Your task to perform on an android device: Open the phone app and click the voicemail tab. Image 0: 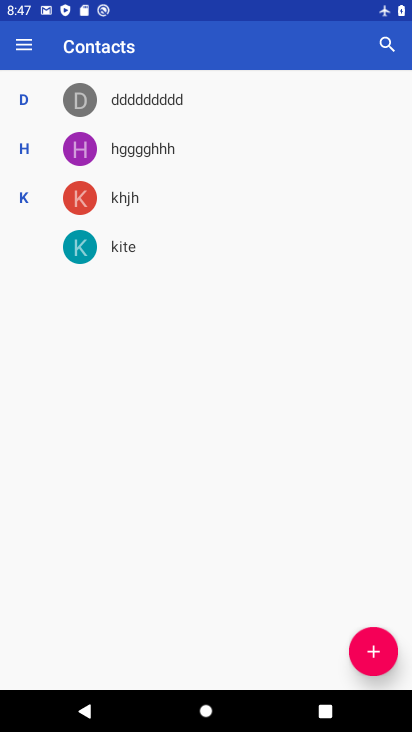
Step 0: press home button
Your task to perform on an android device: Open the phone app and click the voicemail tab. Image 1: 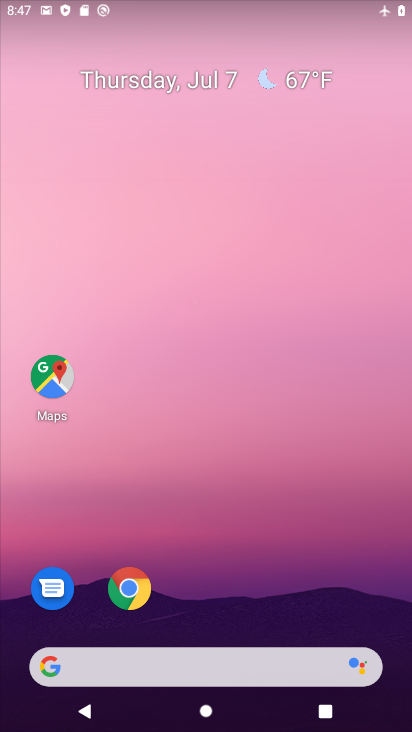
Step 1: drag from (234, 567) to (276, 37)
Your task to perform on an android device: Open the phone app and click the voicemail tab. Image 2: 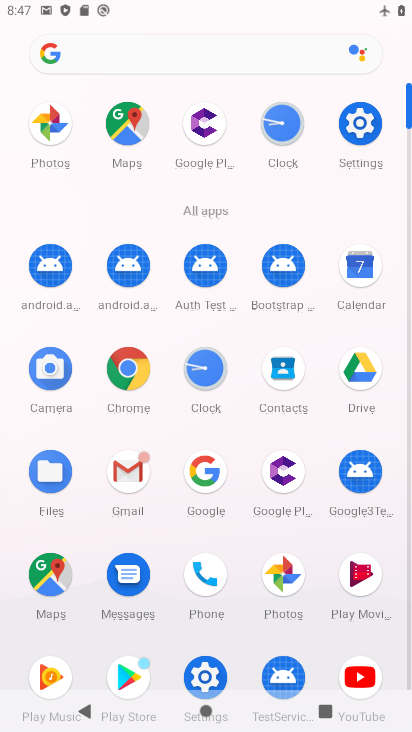
Step 2: click (199, 576)
Your task to perform on an android device: Open the phone app and click the voicemail tab. Image 3: 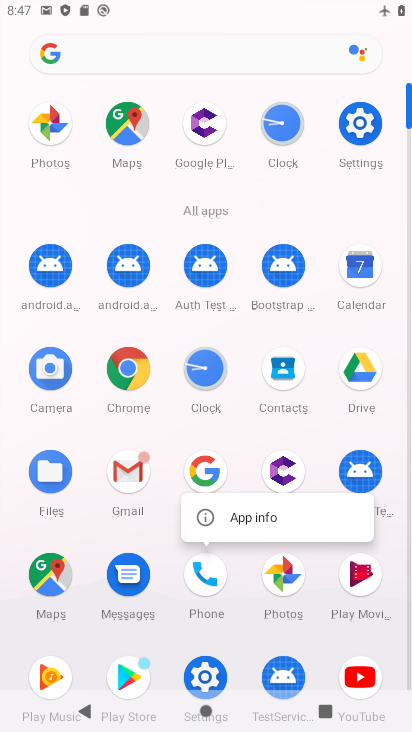
Step 3: click (199, 576)
Your task to perform on an android device: Open the phone app and click the voicemail tab. Image 4: 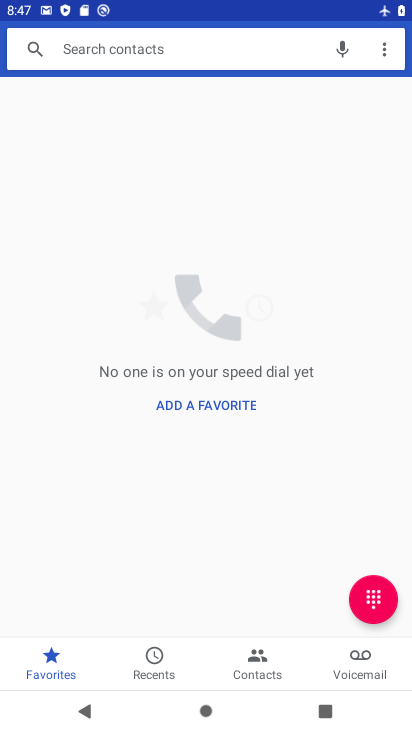
Step 4: click (359, 654)
Your task to perform on an android device: Open the phone app and click the voicemail tab. Image 5: 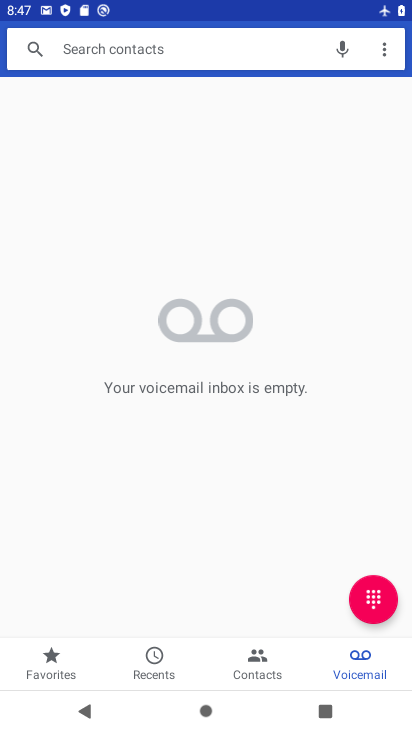
Step 5: task complete